Your task to perform on an android device: Open the calendar and show me this week's events? Image 0: 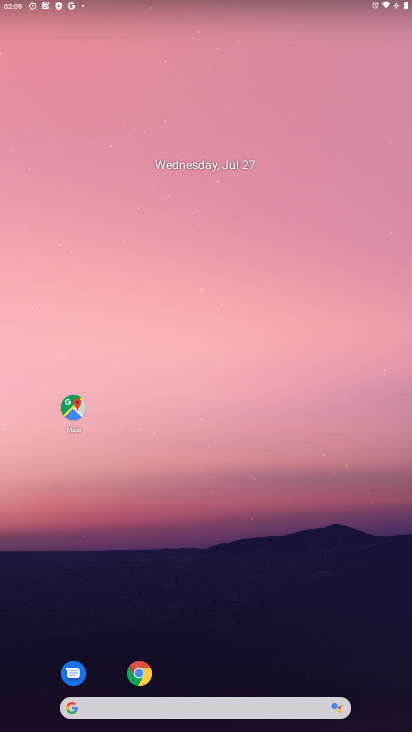
Step 0: drag from (260, 678) to (195, 21)
Your task to perform on an android device: Open the calendar and show me this week's events? Image 1: 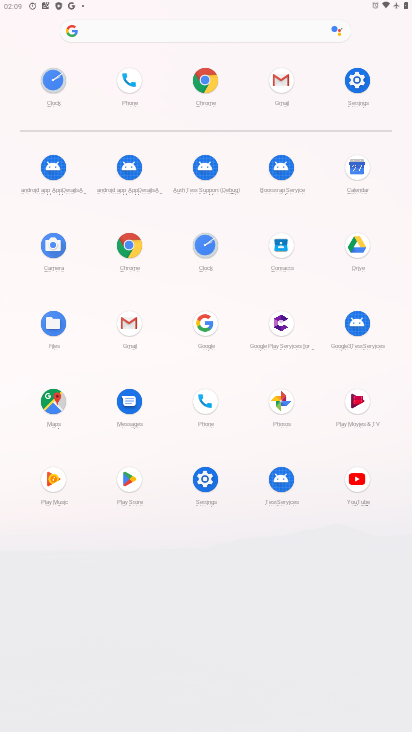
Step 1: click (354, 161)
Your task to perform on an android device: Open the calendar and show me this week's events? Image 2: 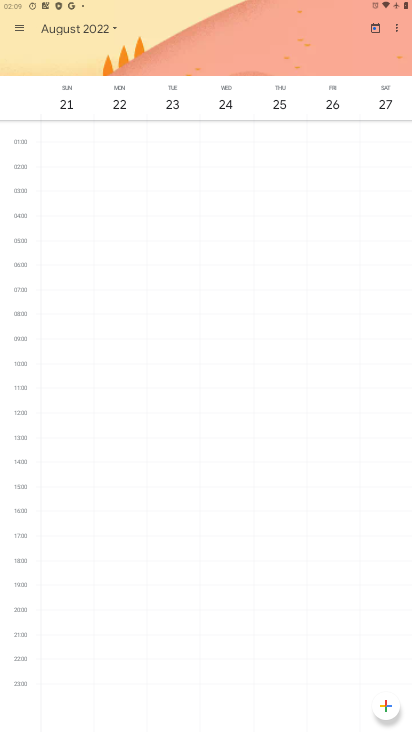
Step 2: click (376, 28)
Your task to perform on an android device: Open the calendar and show me this week's events? Image 3: 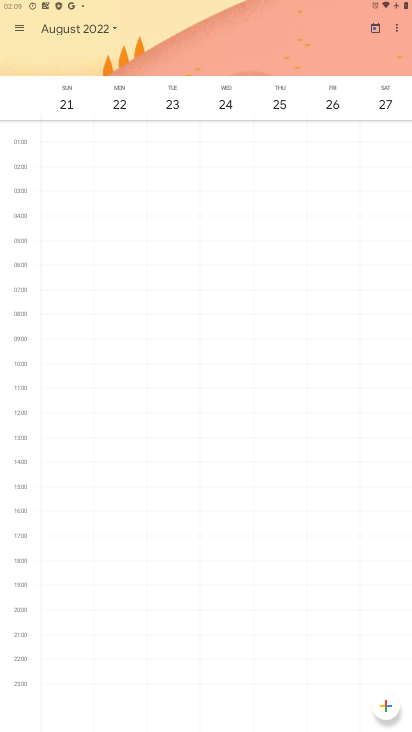
Step 3: click (374, 27)
Your task to perform on an android device: Open the calendar and show me this week's events? Image 4: 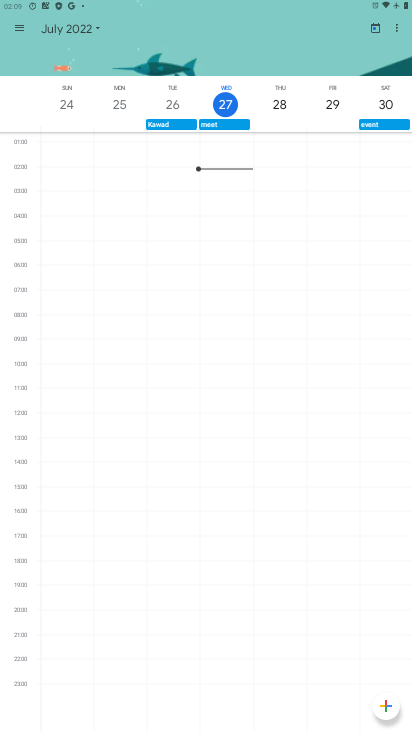
Step 4: click (17, 28)
Your task to perform on an android device: Open the calendar and show me this week's events? Image 5: 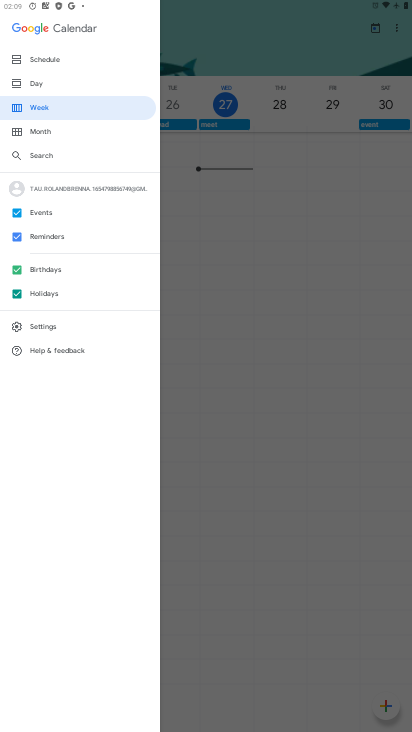
Step 5: click (31, 113)
Your task to perform on an android device: Open the calendar and show me this week's events? Image 6: 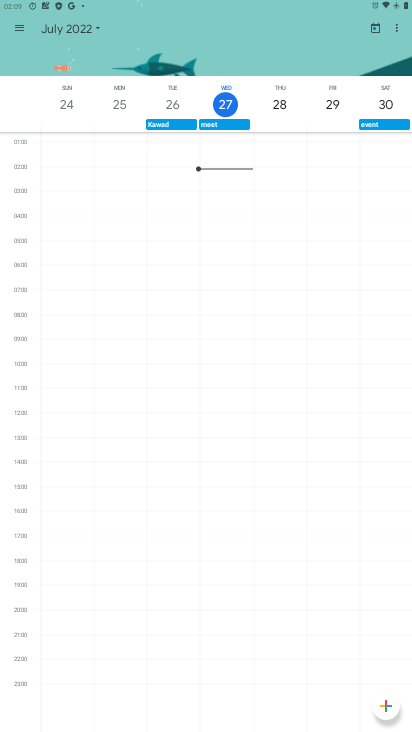
Step 6: task complete